Your task to perform on an android device: Search for vegetarian restaurants on Maps Image 0: 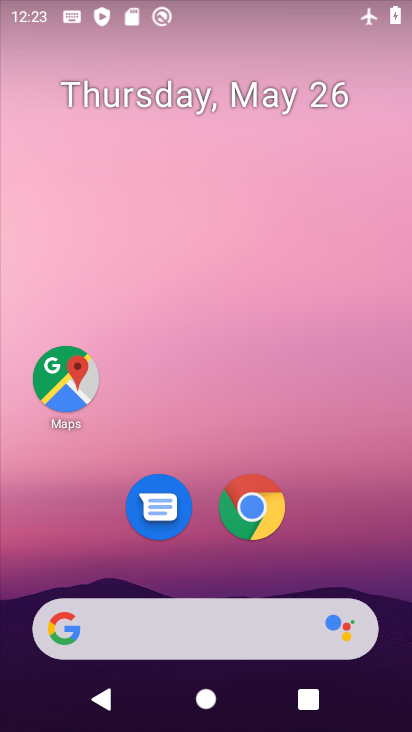
Step 0: click (85, 388)
Your task to perform on an android device: Search for vegetarian restaurants on Maps Image 1: 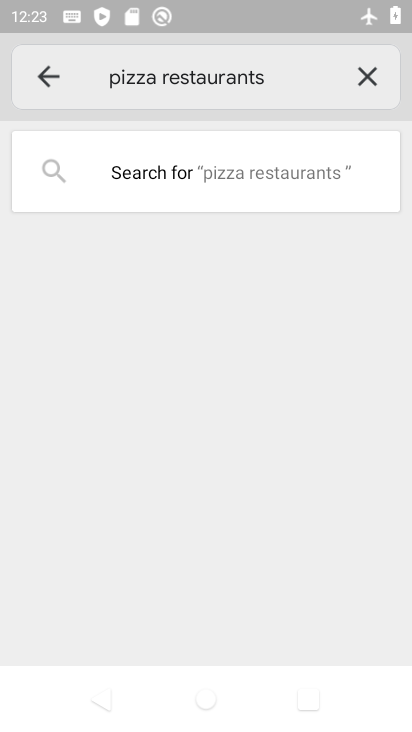
Step 1: click (365, 74)
Your task to perform on an android device: Search for vegetarian restaurants on Maps Image 2: 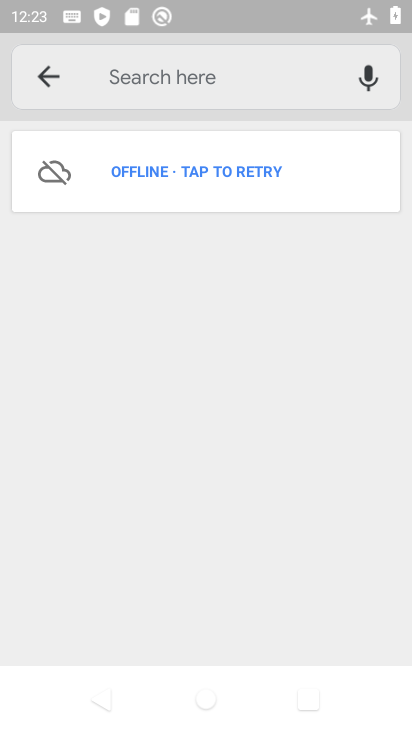
Step 2: click (204, 70)
Your task to perform on an android device: Search for vegetarian restaurants on Maps Image 3: 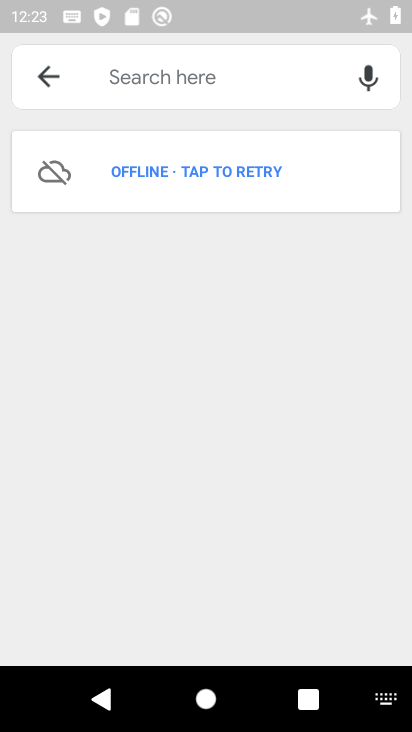
Step 3: type "vegetarian restaurants"
Your task to perform on an android device: Search for vegetarian restaurants on Maps Image 4: 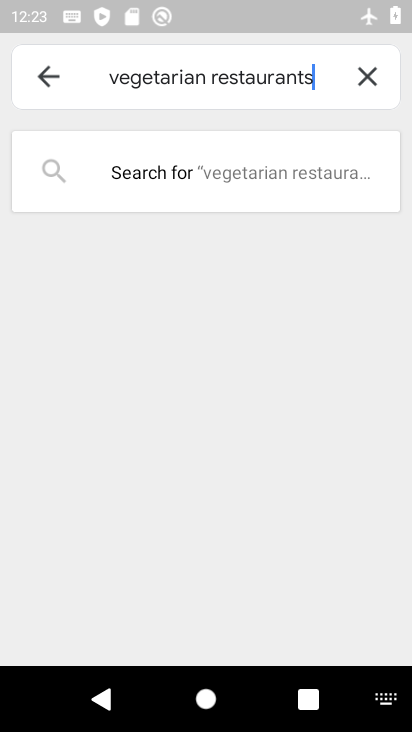
Step 4: task complete